Your task to perform on an android device: change the clock display to analog Image 0: 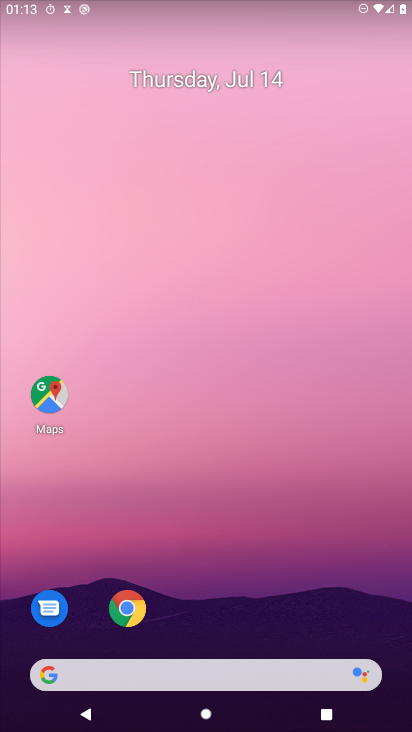
Step 0: press home button
Your task to perform on an android device: change the clock display to analog Image 1: 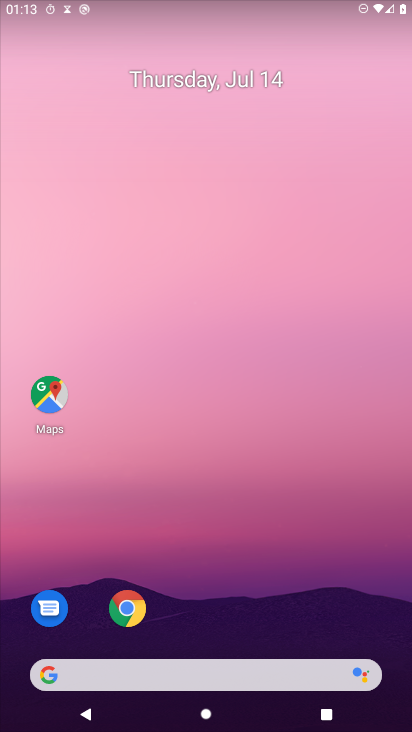
Step 1: drag from (289, 574) to (288, 7)
Your task to perform on an android device: change the clock display to analog Image 2: 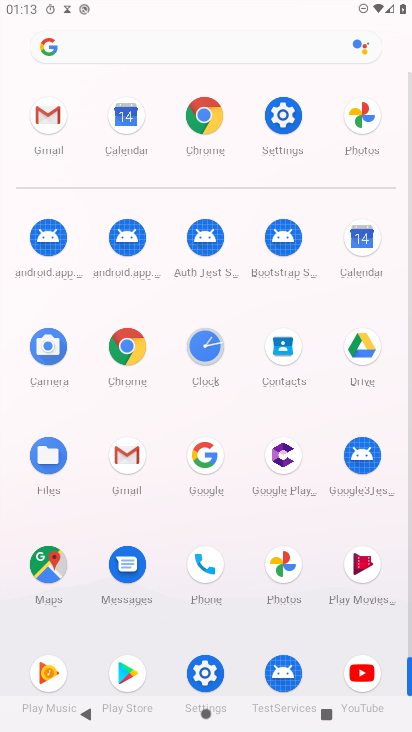
Step 2: click (206, 355)
Your task to perform on an android device: change the clock display to analog Image 3: 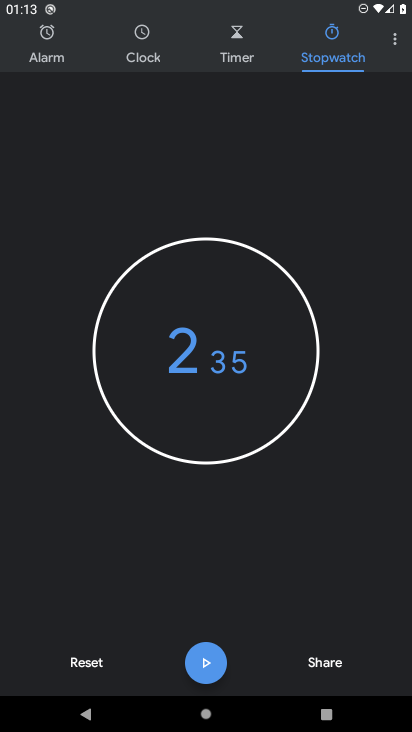
Step 3: click (392, 39)
Your task to perform on an android device: change the clock display to analog Image 4: 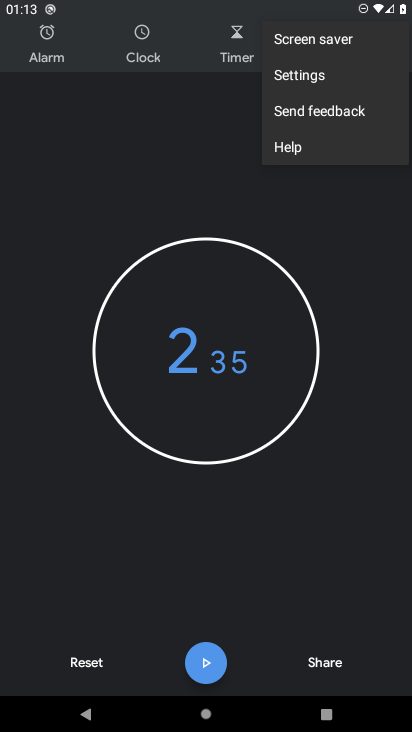
Step 4: click (286, 77)
Your task to perform on an android device: change the clock display to analog Image 5: 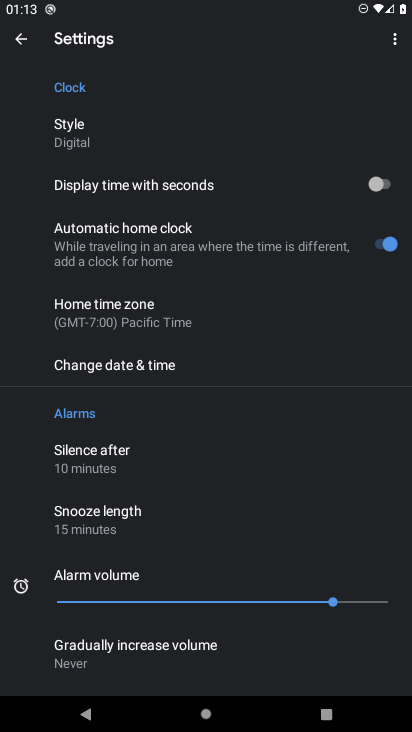
Step 5: click (58, 135)
Your task to perform on an android device: change the clock display to analog Image 6: 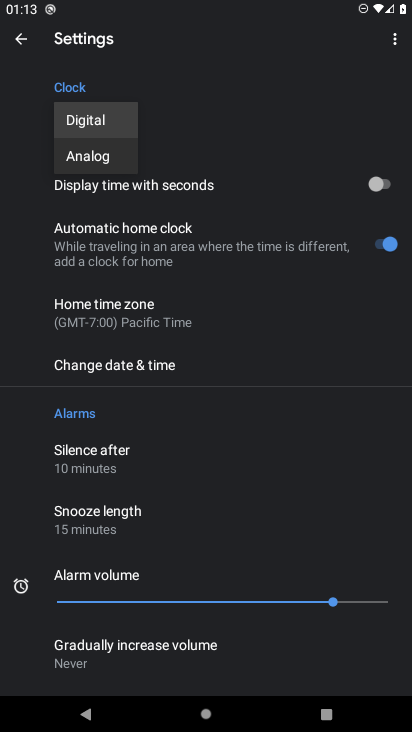
Step 6: click (81, 164)
Your task to perform on an android device: change the clock display to analog Image 7: 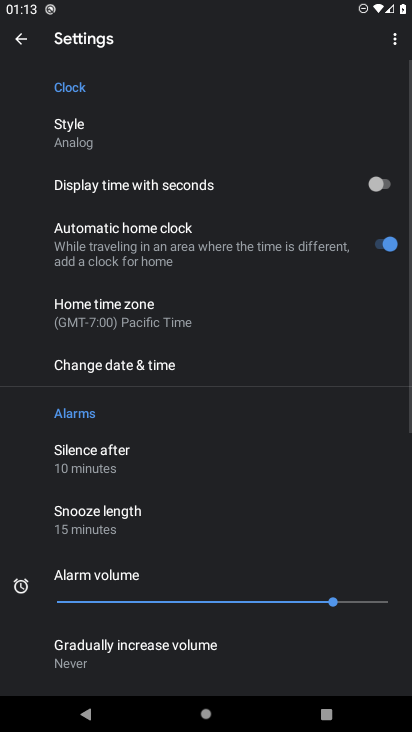
Step 7: task complete